Your task to perform on an android device: set the timer Image 0: 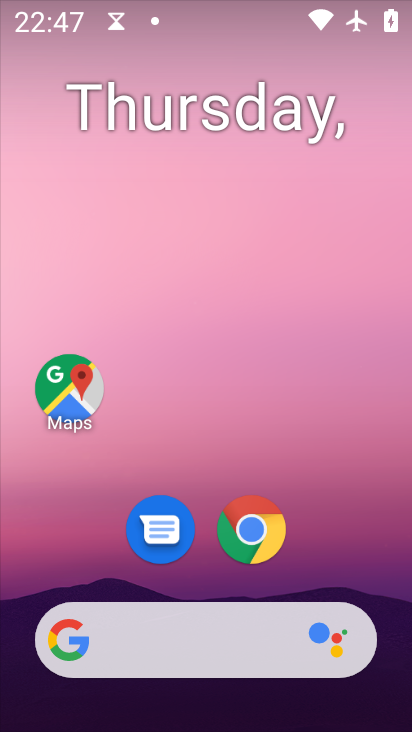
Step 0: drag from (348, 608) to (333, 33)
Your task to perform on an android device: set the timer Image 1: 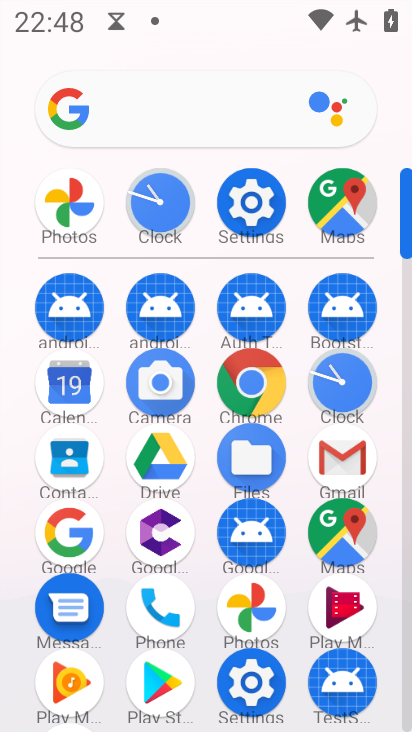
Step 1: click (335, 375)
Your task to perform on an android device: set the timer Image 2: 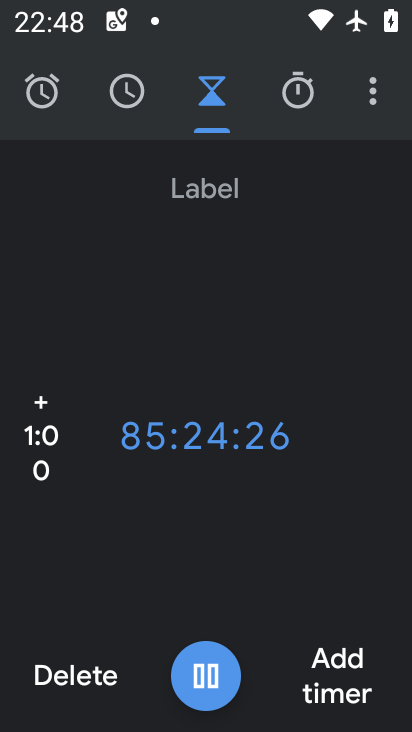
Step 2: click (354, 677)
Your task to perform on an android device: set the timer Image 3: 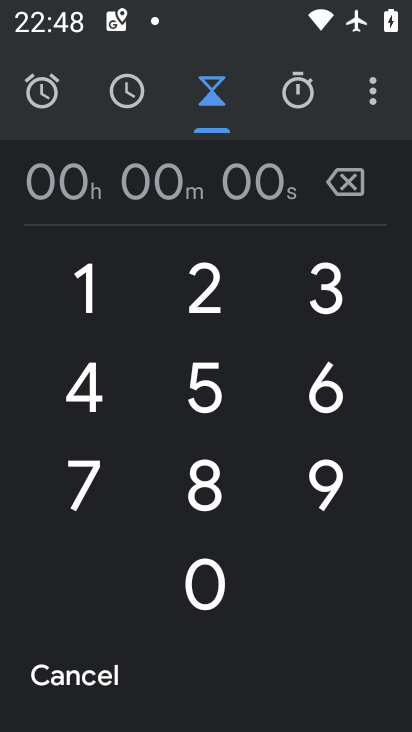
Step 3: click (113, 307)
Your task to perform on an android device: set the timer Image 4: 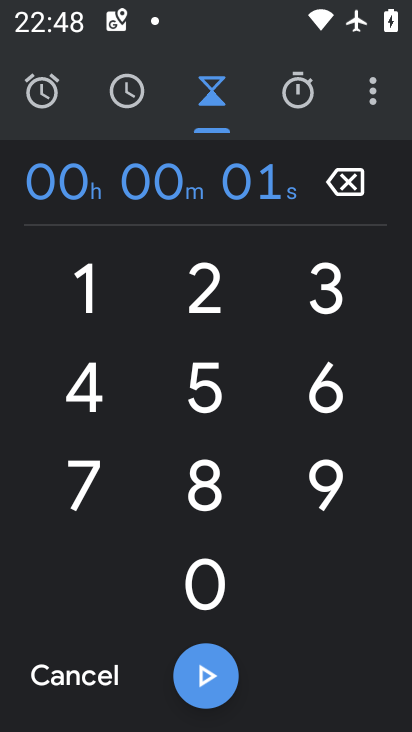
Step 4: click (111, 302)
Your task to perform on an android device: set the timer Image 5: 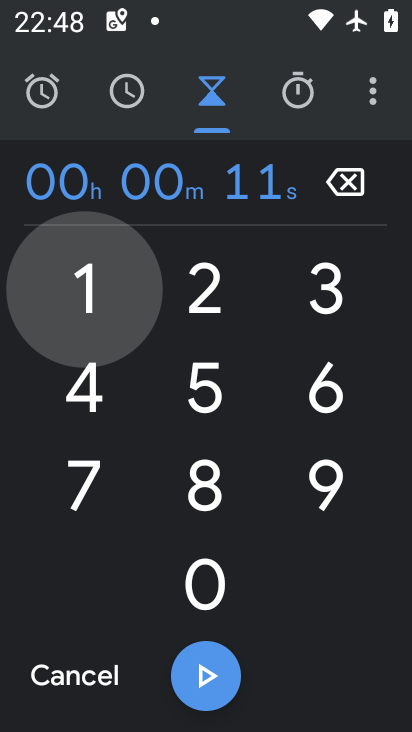
Step 5: click (111, 302)
Your task to perform on an android device: set the timer Image 6: 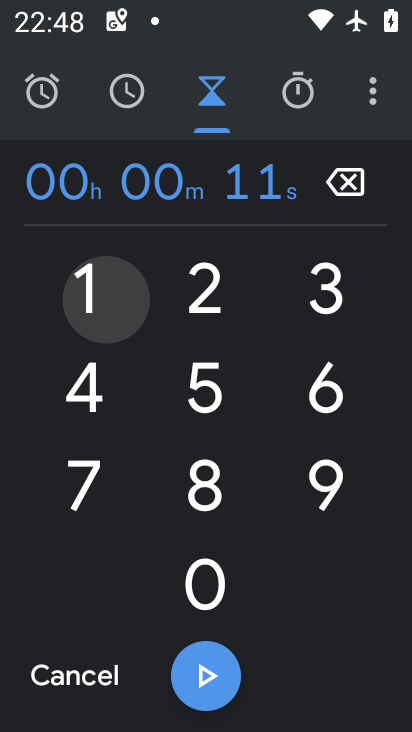
Step 6: click (110, 301)
Your task to perform on an android device: set the timer Image 7: 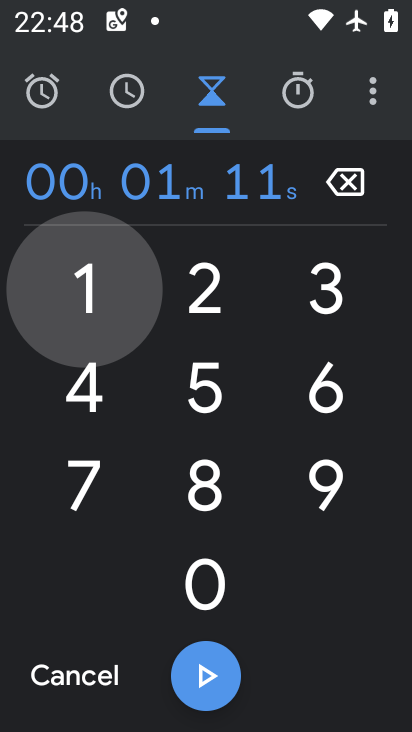
Step 7: click (110, 301)
Your task to perform on an android device: set the timer Image 8: 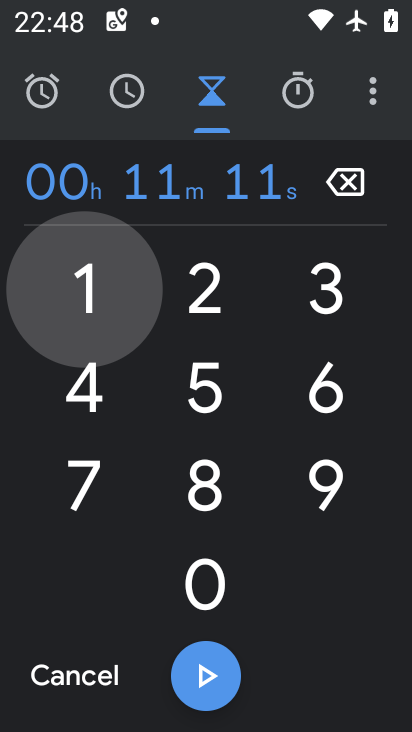
Step 8: click (109, 299)
Your task to perform on an android device: set the timer Image 9: 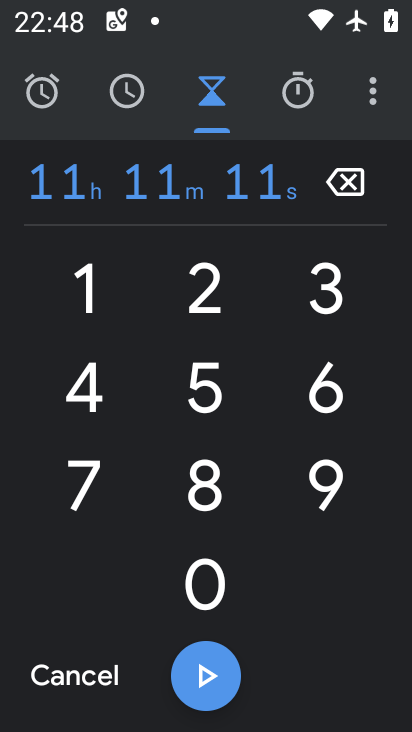
Step 9: click (105, 296)
Your task to perform on an android device: set the timer Image 10: 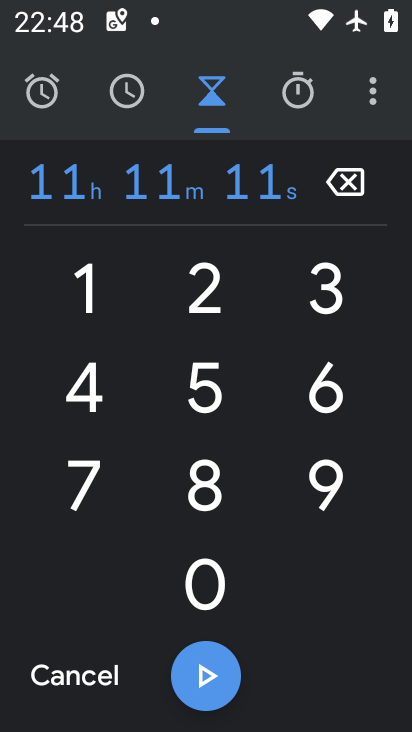
Step 10: click (217, 678)
Your task to perform on an android device: set the timer Image 11: 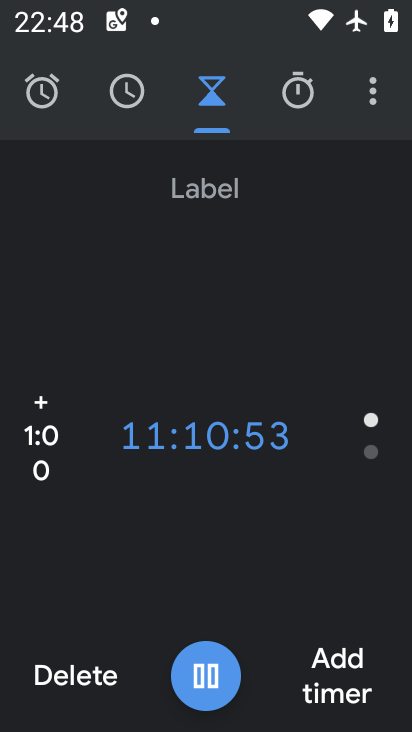
Step 11: task complete